Your task to perform on an android device: Show me popular videos on Youtube Image 0: 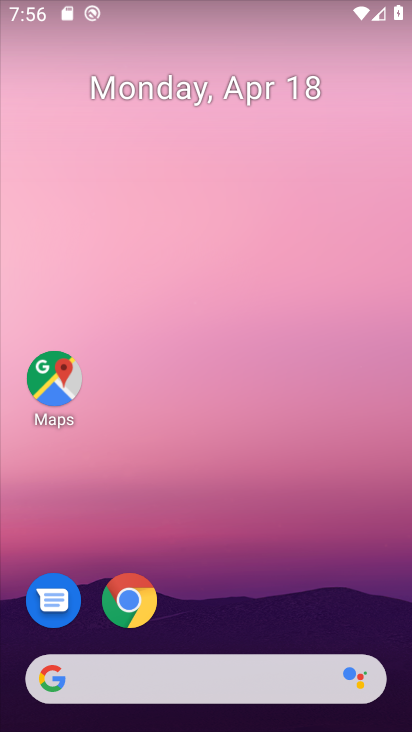
Step 0: drag from (218, 642) to (338, 72)
Your task to perform on an android device: Show me popular videos on Youtube Image 1: 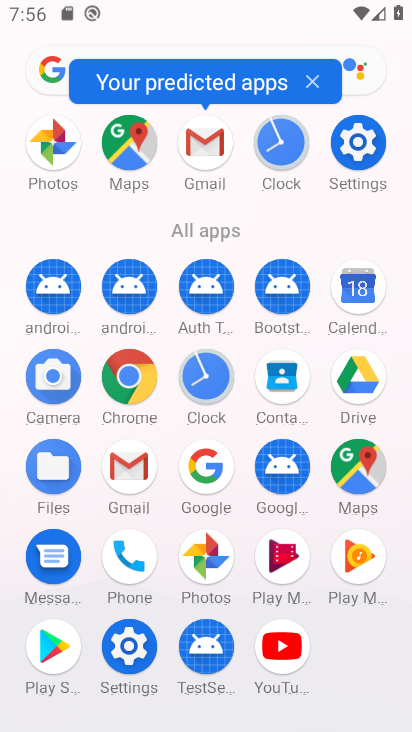
Step 1: click (287, 654)
Your task to perform on an android device: Show me popular videos on Youtube Image 2: 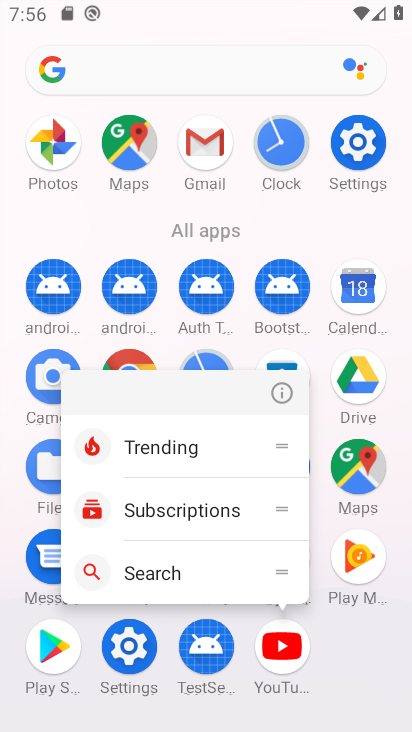
Step 2: click (284, 654)
Your task to perform on an android device: Show me popular videos on Youtube Image 3: 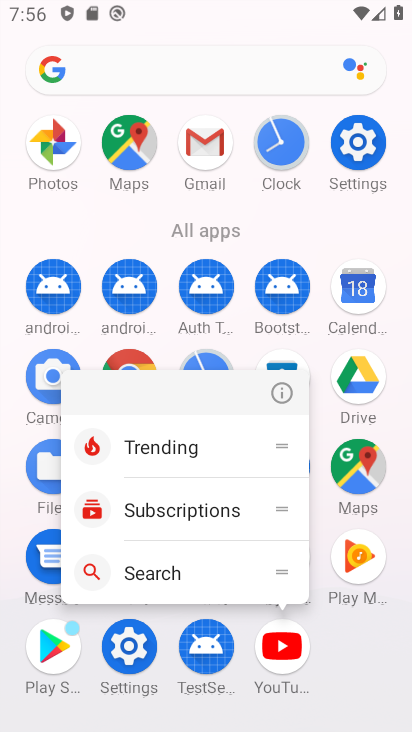
Step 3: click (284, 654)
Your task to perform on an android device: Show me popular videos on Youtube Image 4: 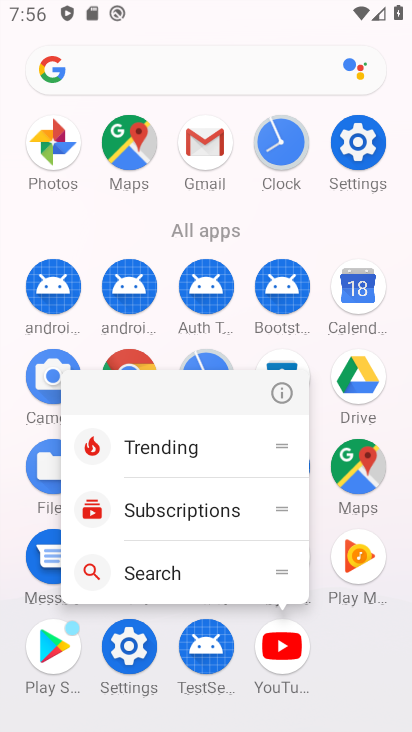
Step 4: click (289, 671)
Your task to perform on an android device: Show me popular videos on Youtube Image 5: 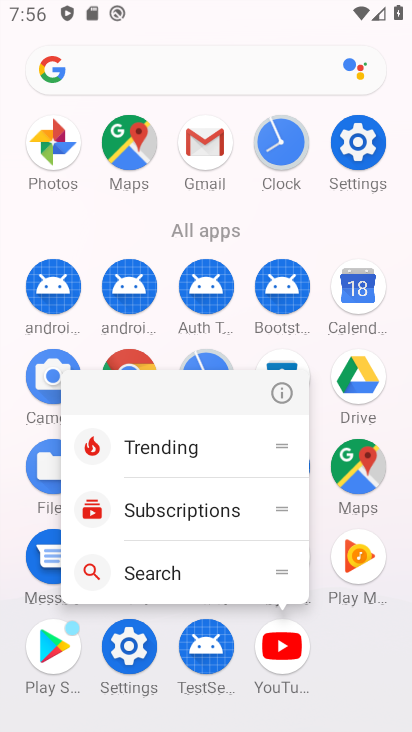
Step 5: click (288, 654)
Your task to perform on an android device: Show me popular videos on Youtube Image 6: 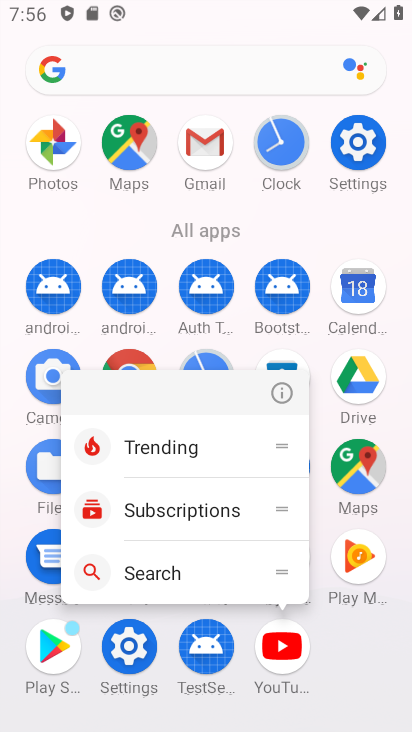
Step 6: click (288, 647)
Your task to perform on an android device: Show me popular videos on Youtube Image 7: 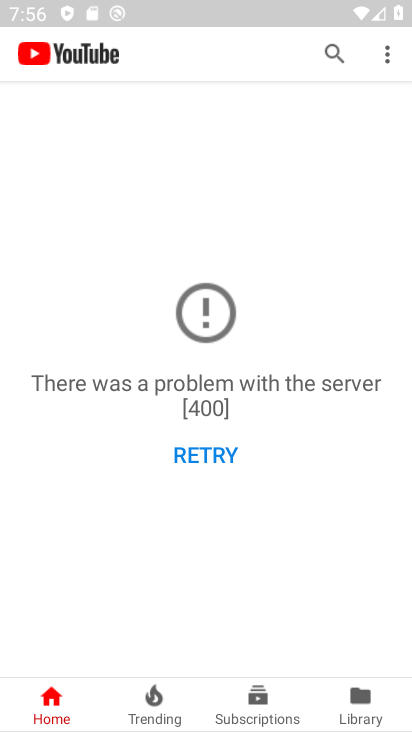
Step 7: task complete